Your task to perform on an android device: turn off smart reply in the gmail app Image 0: 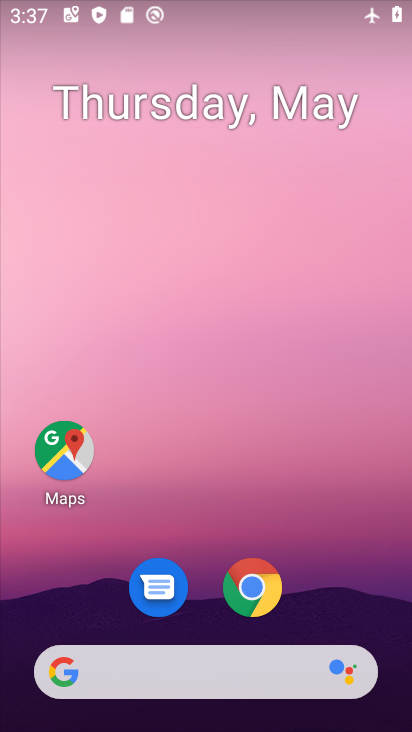
Step 0: drag from (245, 521) to (291, 175)
Your task to perform on an android device: turn off smart reply in the gmail app Image 1: 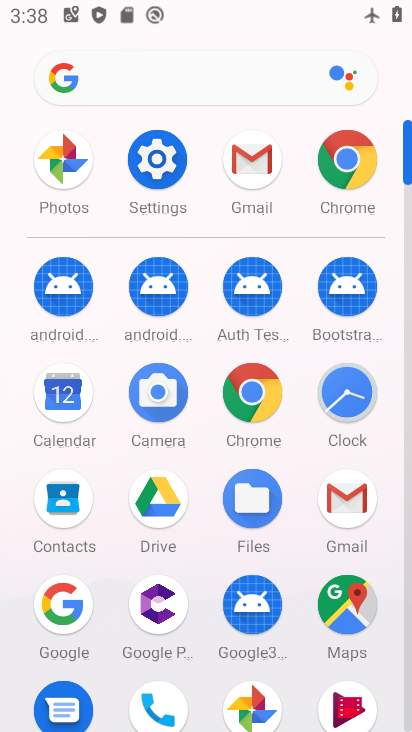
Step 1: click (343, 512)
Your task to perform on an android device: turn off smart reply in the gmail app Image 2: 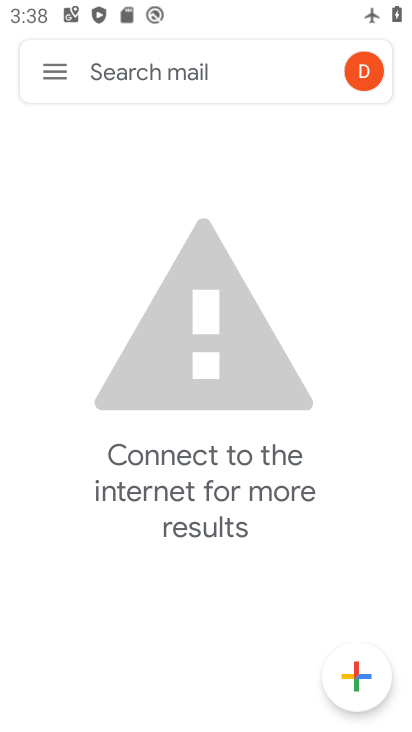
Step 2: click (61, 74)
Your task to perform on an android device: turn off smart reply in the gmail app Image 3: 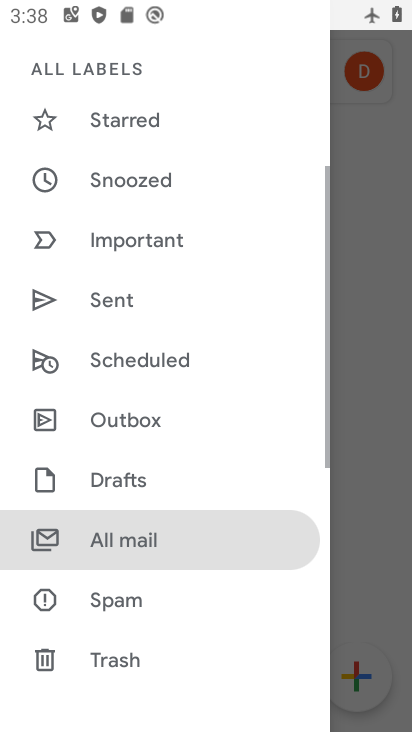
Step 3: drag from (127, 395) to (165, 130)
Your task to perform on an android device: turn off smart reply in the gmail app Image 4: 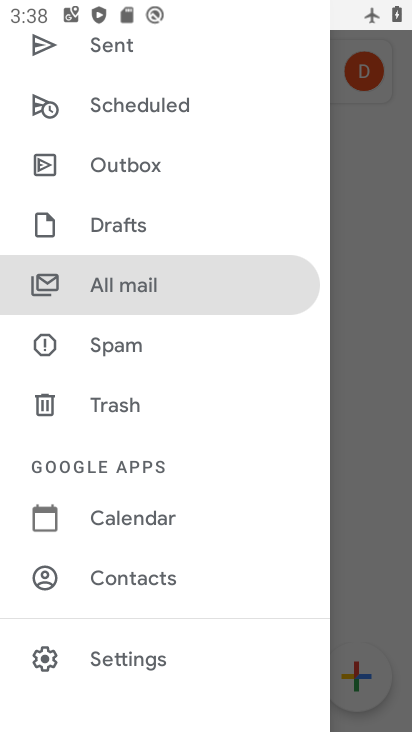
Step 4: click (165, 225)
Your task to perform on an android device: turn off smart reply in the gmail app Image 5: 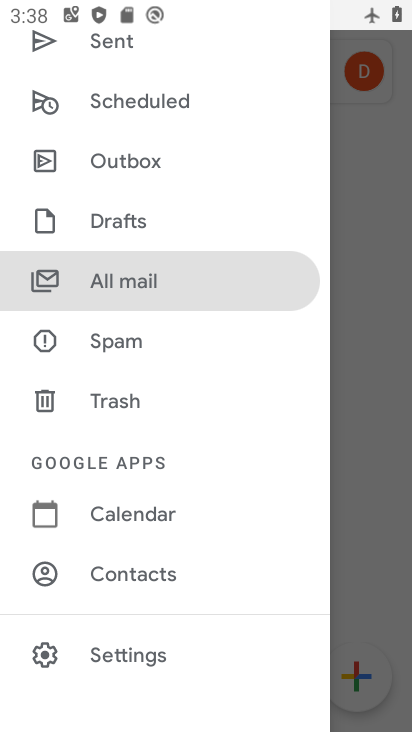
Step 5: click (118, 654)
Your task to perform on an android device: turn off smart reply in the gmail app Image 6: 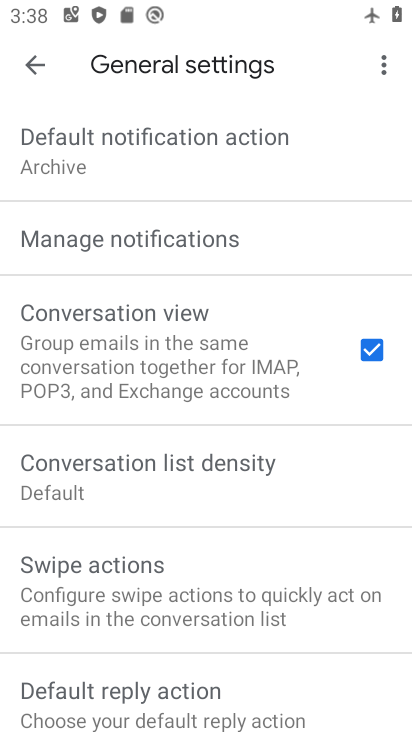
Step 6: drag from (61, 555) to (68, 342)
Your task to perform on an android device: turn off smart reply in the gmail app Image 7: 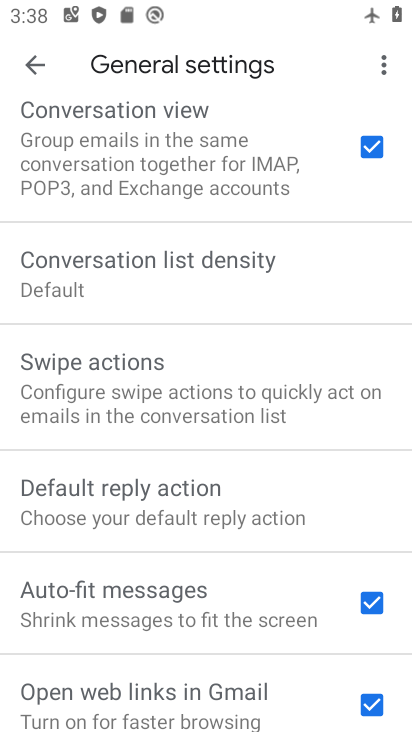
Step 7: drag from (156, 583) to (156, 372)
Your task to perform on an android device: turn off smart reply in the gmail app Image 8: 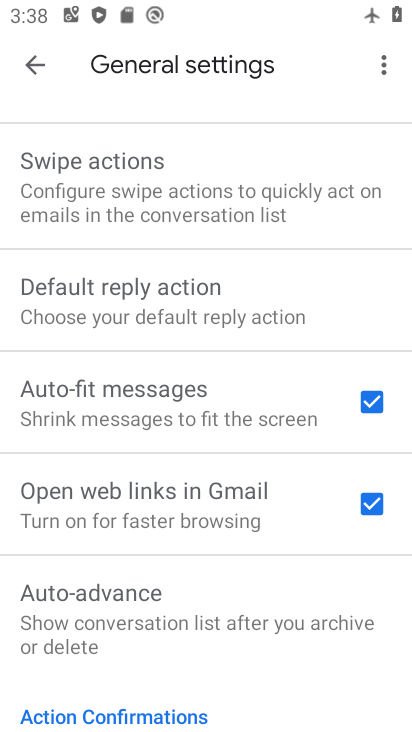
Step 8: drag from (181, 516) to (255, 212)
Your task to perform on an android device: turn off smart reply in the gmail app Image 9: 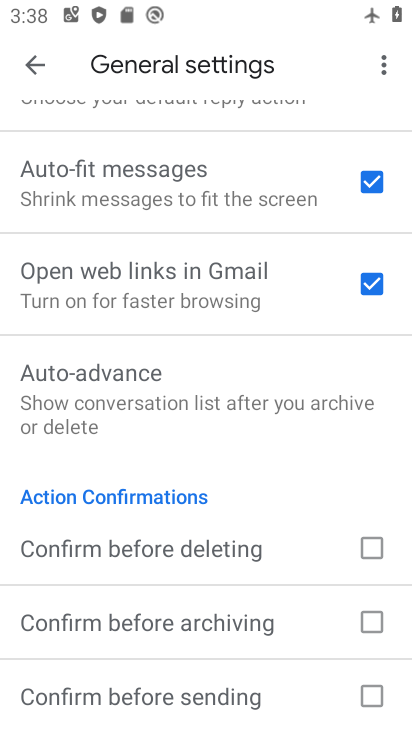
Step 9: click (34, 81)
Your task to perform on an android device: turn off smart reply in the gmail app Image 10: 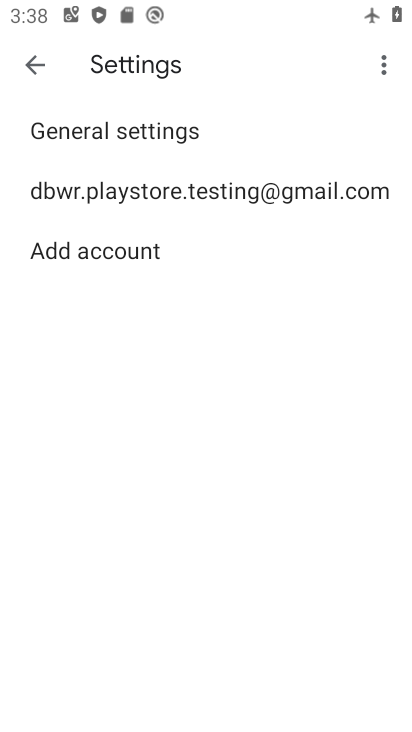
Step 10: click (94, 204)
Your task to perform on an android device: turn off smart reply in the gmail app Image 11: 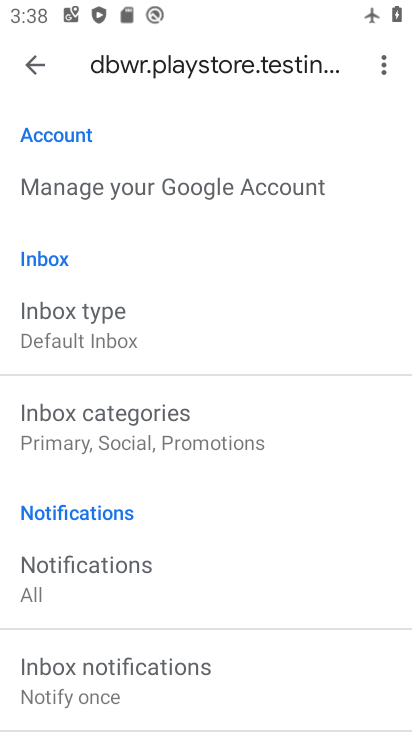
Step 11: drag from (168, 442) to (212, 167)
Your task to perform on an android device: turn off smart reply in the gmail app Image 12: 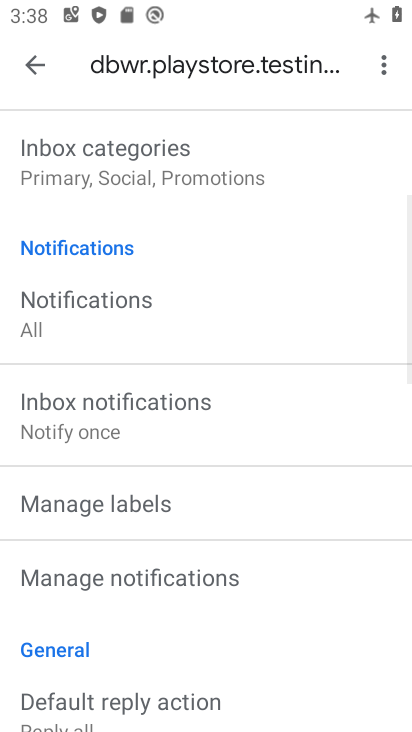
Step 12: drag from (183, 378) to (235, 171)
Your task to perform on an android device: turn off smart reply in the gmail app Image 13: 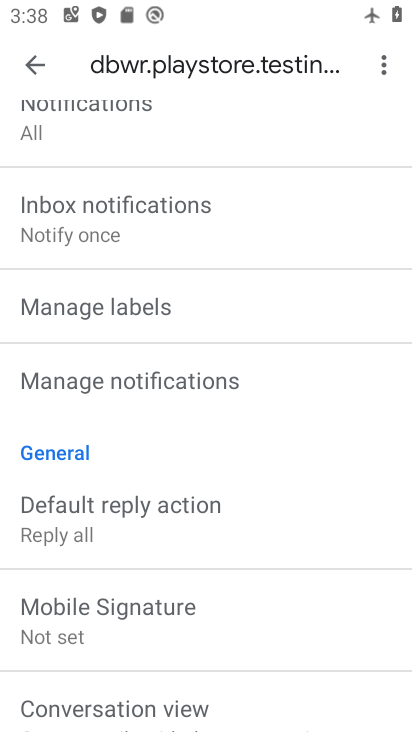
Step 13: drag from (224, 429) to (260, 279)
Your task to perform on an android device: turn off smart reply in the gmail app Image 14: 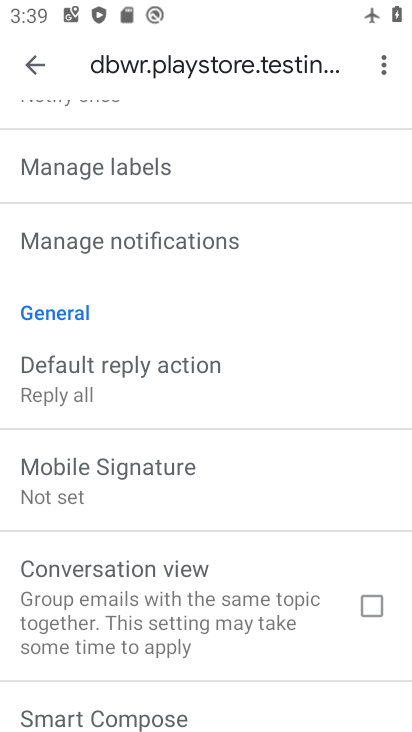
Step 14: drag from (198, 507) to (225, 226)
Your task to perform on an android device: turn off smart reply in the gmail app Image 15: 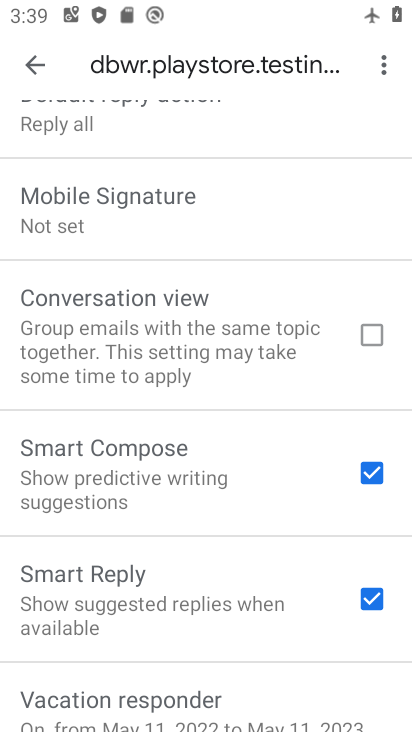
Step 15: drag from (192, 505) to (195, 336)
Your task to perform on an android device: turn off smart reply in the gmail app Image 16: 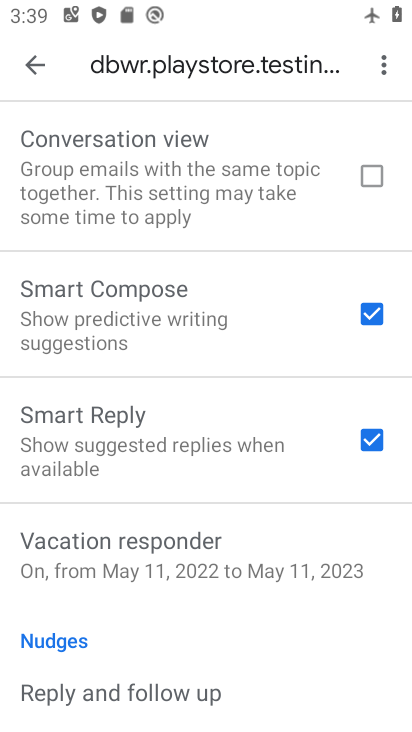
Step 16: click (378, 455)
Your task to perform on an android device: turn off smart reply in the gmail app Image 17: 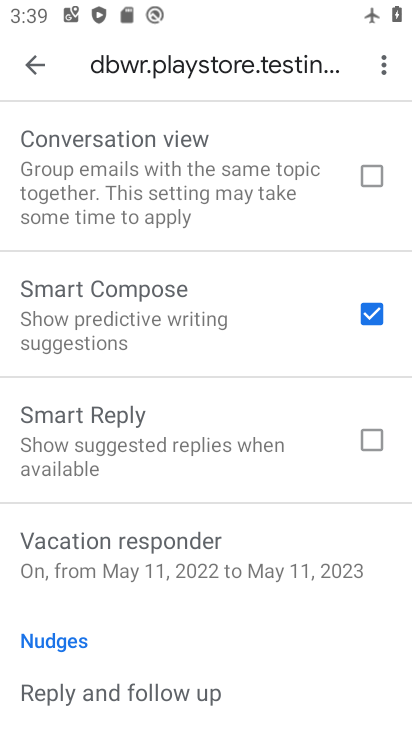
Step 17: task complete